Your task to perform on an android device: Search for a storage ottoman in the living room Image 0: 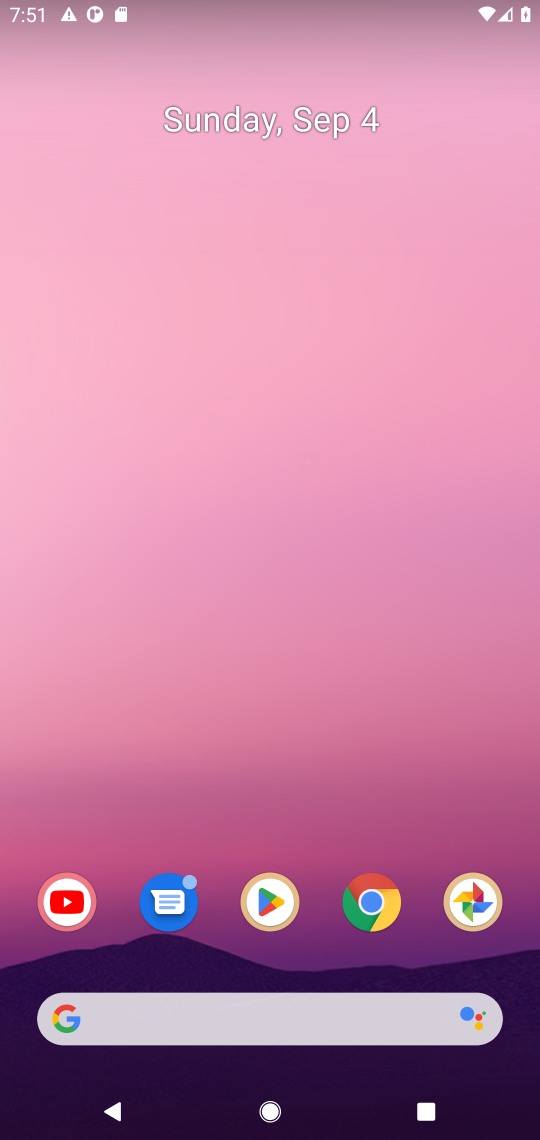
Step 0: task complete